Your task to perform on an android device: Open location settings Image 0: 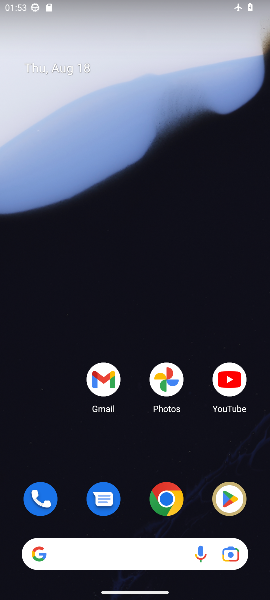
Step 0: drag from (134, 466) to (175, 127)
Your task to perform on an android device: Open location settings Image 1: 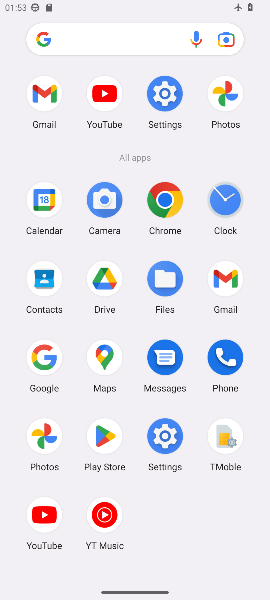
Step 1: click (165, 93)
Your task to perform on an android device: Open location settings Image 2: 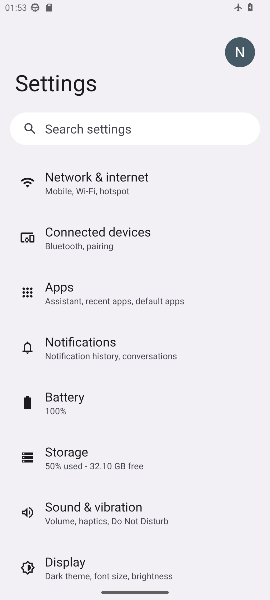
Step 2: drag from (150, 536) to (137, 242)
Your task to perform on an android device: Open location settings Image 3: 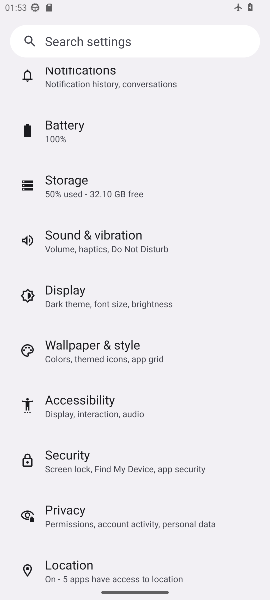
Step 3: click (64, 564)
Your task to perform on an android device: Open location settings Image 4: 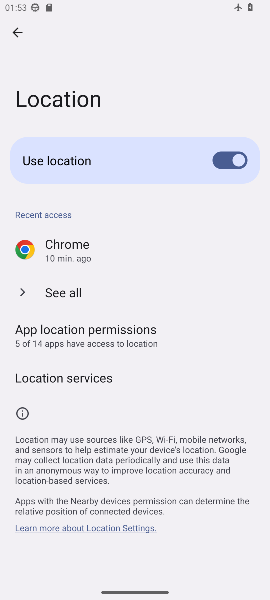
Step 4: task complete